Your task to perform on an android device: Open eBay Image 0: 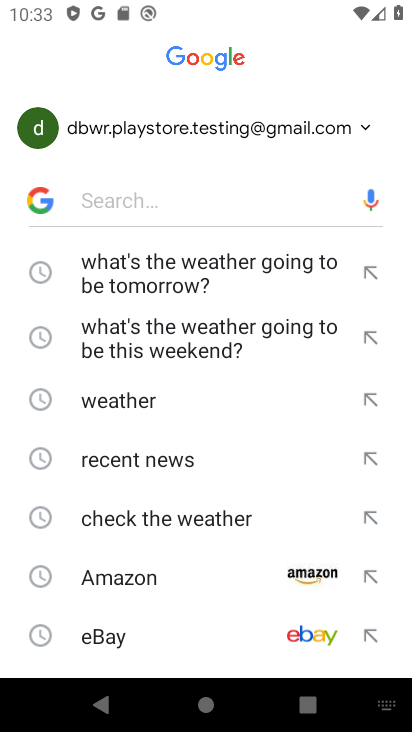
Step 0: press back button
Your task to perform on an android device: Open eBay Image 1: 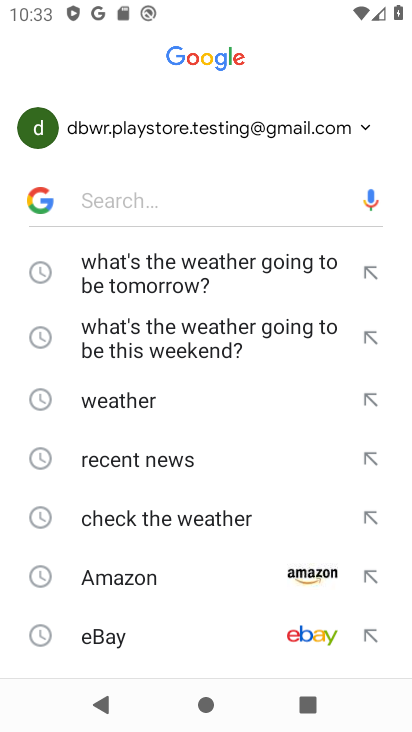
Step 1: press back button
Your task to perform on an android device: Open eBay Image 2: 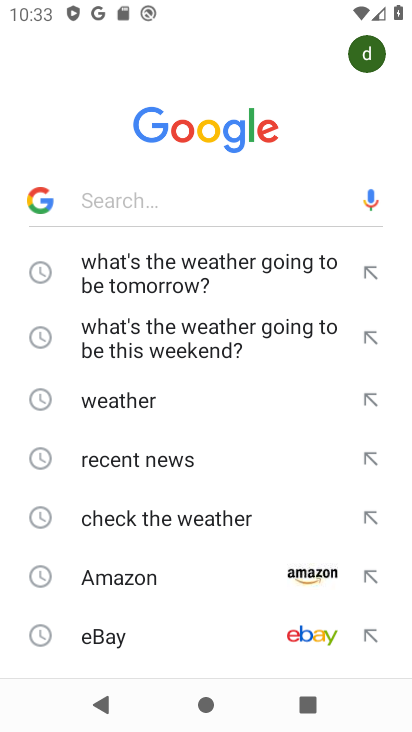
Step 2: press home button
Your task to perform on an android device: Open eBay Image 3: 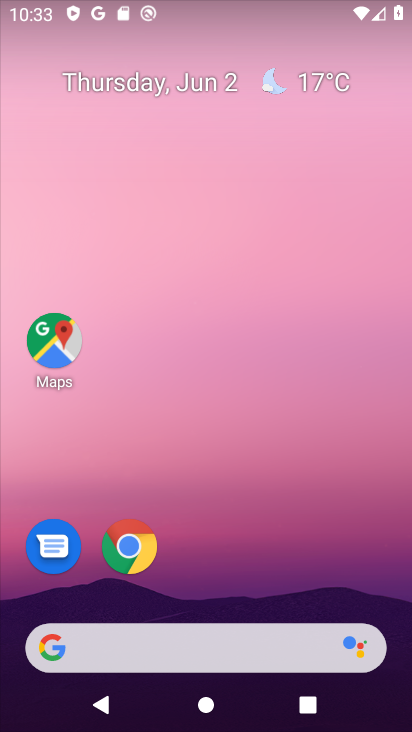
Step 3: drag from (243, 496) to (210, 22)
Your task to perform on an android device: Open eBay Image 4: 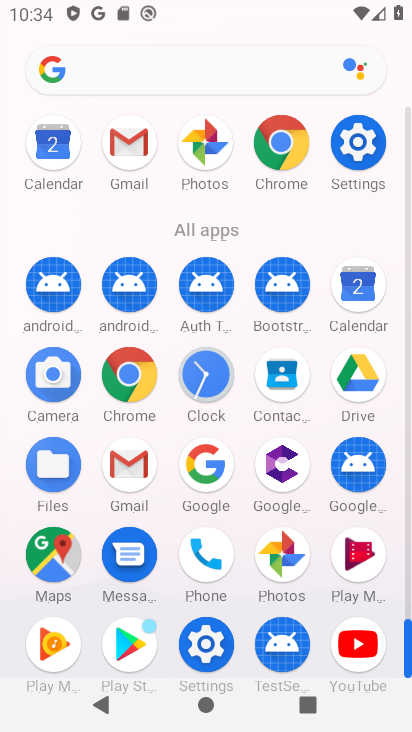
Step 4: click (284, 143)
Your task to perform on an android device: Open eBay Image 5: 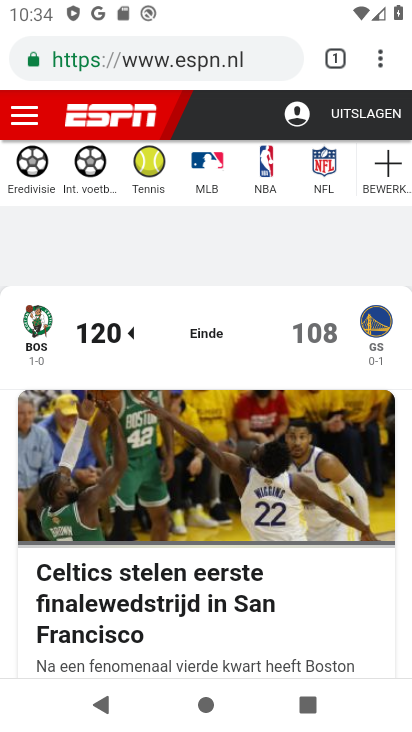
Step 5: click (201, 47)
Your task to perform on an android device: Open eBay Image 6: 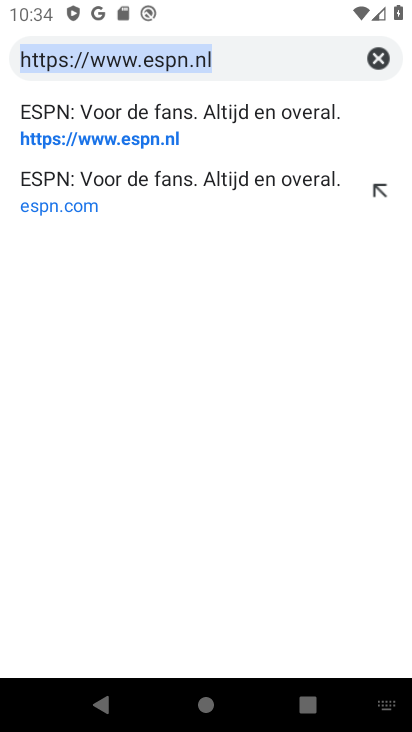
Step 6: click (370, 54)
Your task to perform on an android device: Open eBay Image 7: 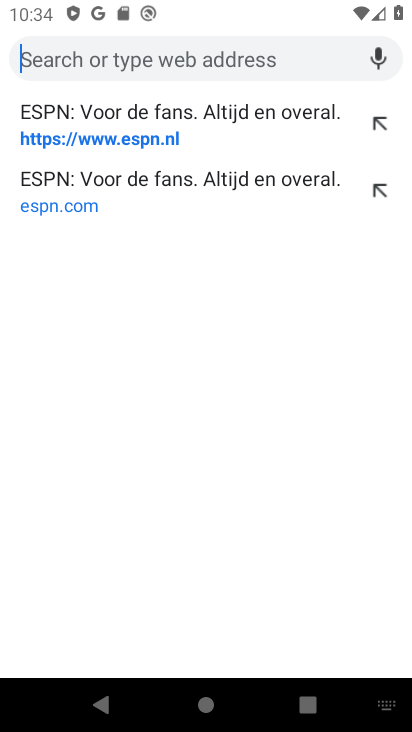
Step 7: type "eBay"
Your task to perform on an android device: Open eBay Image 8: 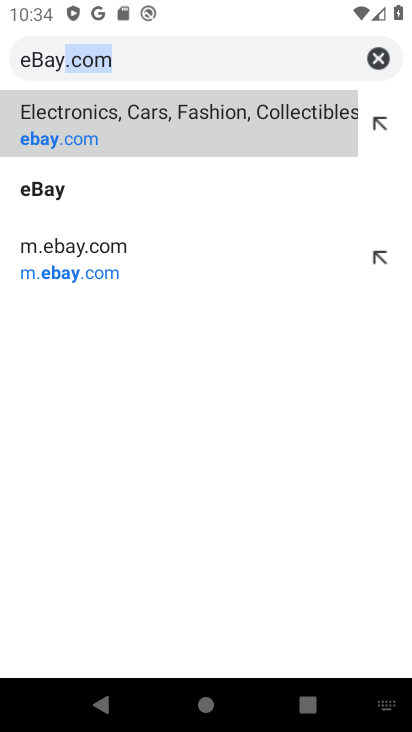
Step 8: click (193, 116)
Your task to perform on an android device: Open eBay Image 9: 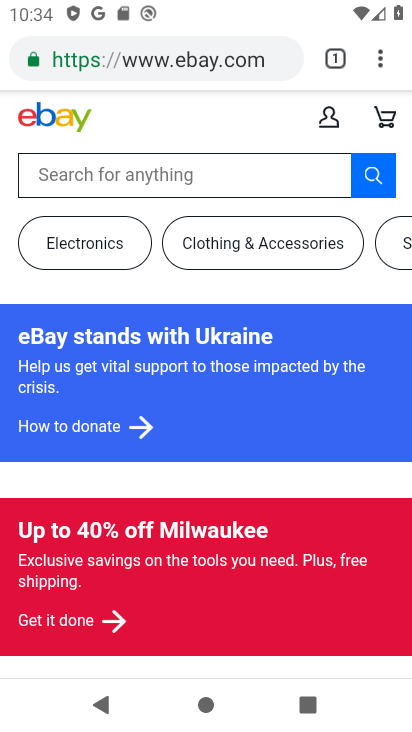
Step 9: task complete